Your task to perform on an android device: allow cookies in the chrome app Image 0: 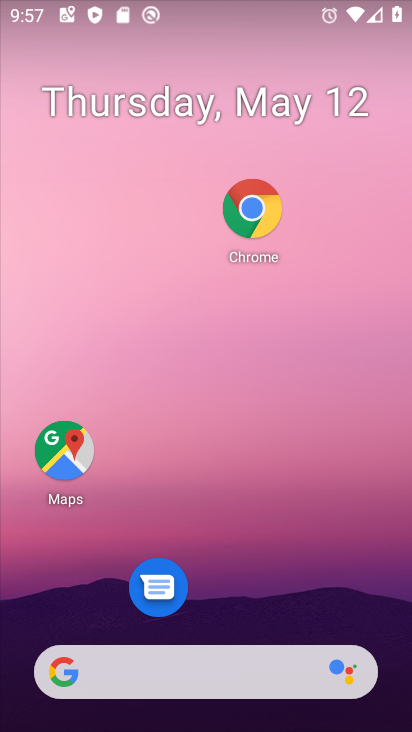
Step 0: drag from (292, 544) to (324, 306)
Your task to perform on an android device: allow cookies in the chrome app Image 1: 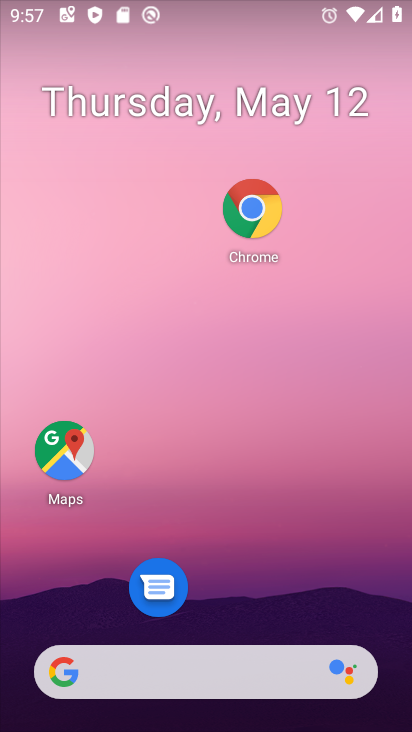
Step 1: drag from (316, 612) to (374, 105)
Your task to perform on an android device: allow cookies in the chrome app Image 2: 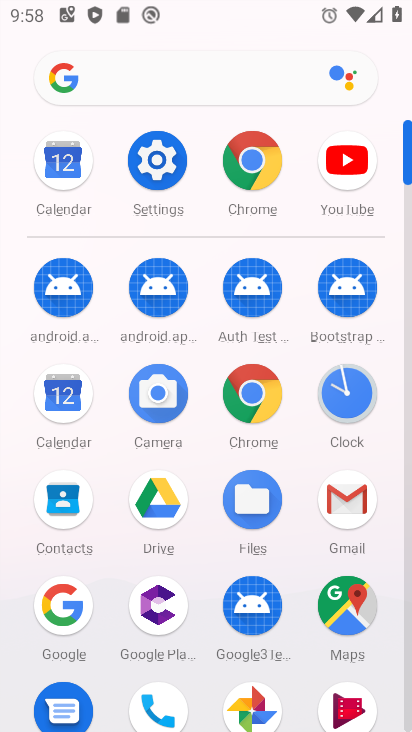
Step 2: click (259, 158)
Your task to perform on an android device: allow cookies in the chrome app Image 3: 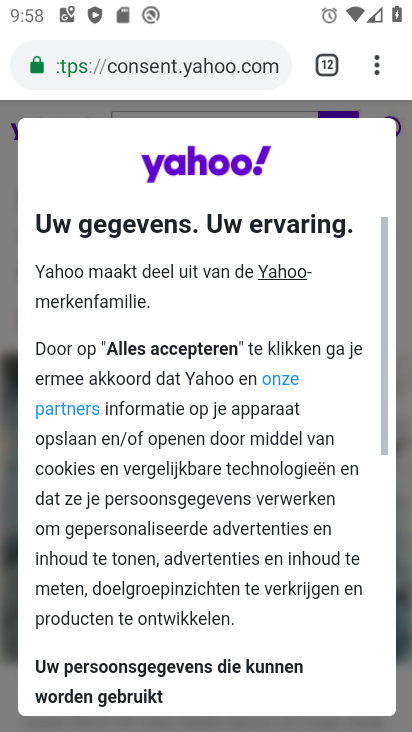
Step 3: click (359, 56)
Your task to perform on an android device: allow cookies in the chrome app Image 4: 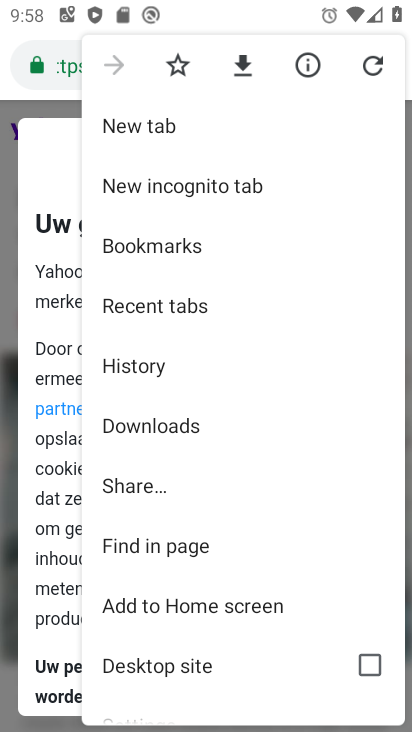
Step 4: drag from (225, 546) to (269, 239)
Your task to perform on an android device: allow cookies in the chrome app Image 5: 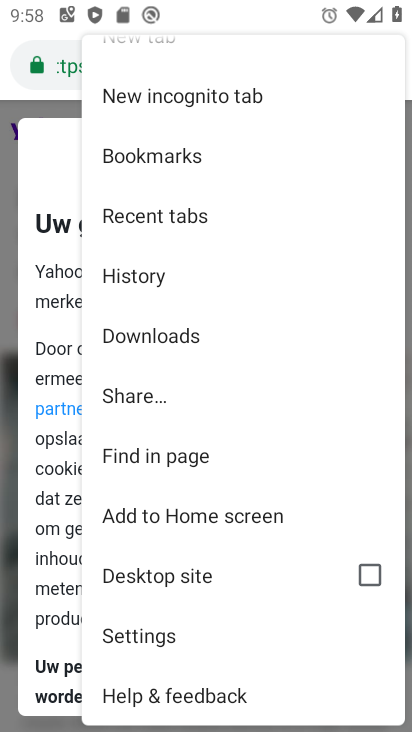
Step 5: click (145, 632)
Your task to perform on an android device: allow cookies in the chrome app Image 6: 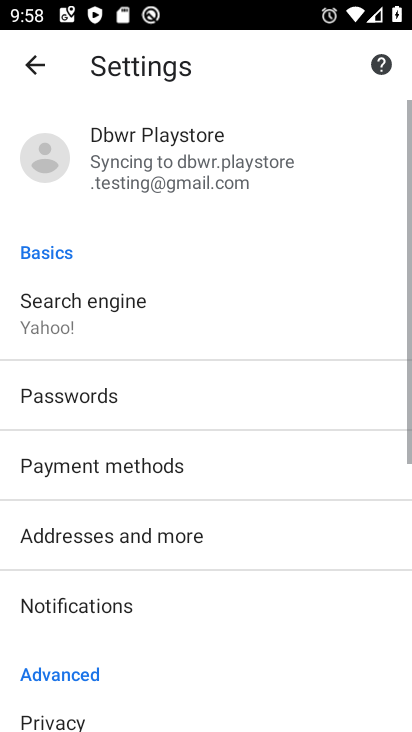
Step 6: drag from (232, 612) to (303, 162)
Your task to perform on an android device: allow cookies in the chrome app Image 7: 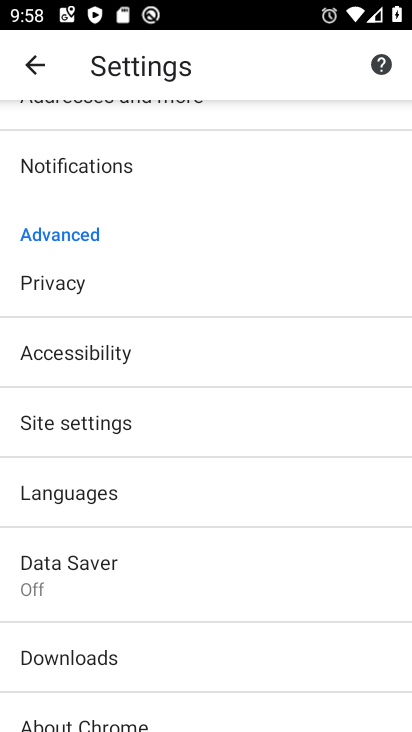
Step 7: click (139, 423)
Your task to perform on an android device: allow cookies in the chrome app Image 8: 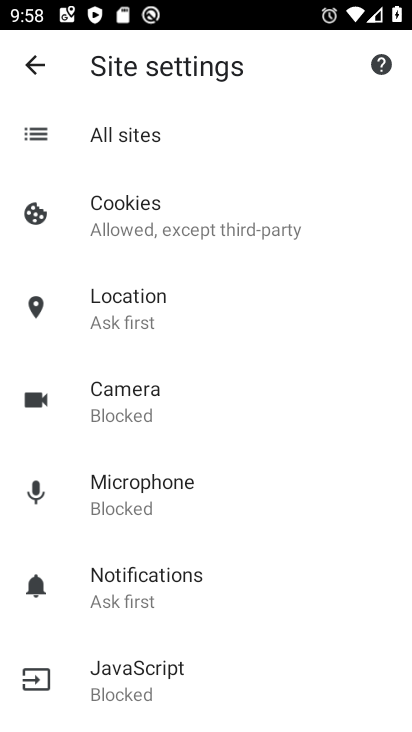
Step 8: click (131, 216)
Your task to perform on an android device: allow cookies in the chrome app Image 9: 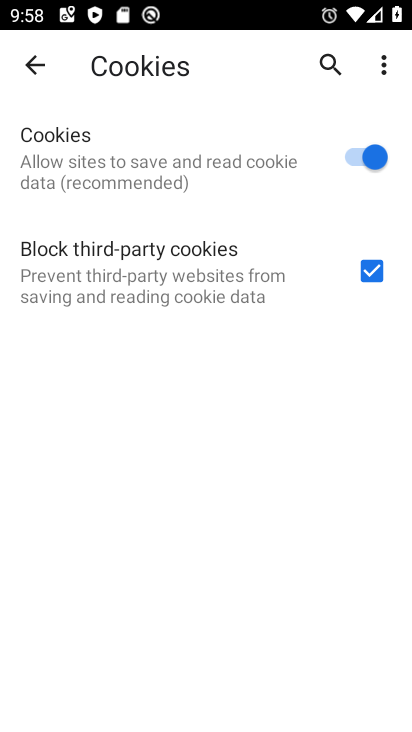
Step 9: task complete